Your task to perform on an android device: Set the phone to "Do not disturb". Image 0: 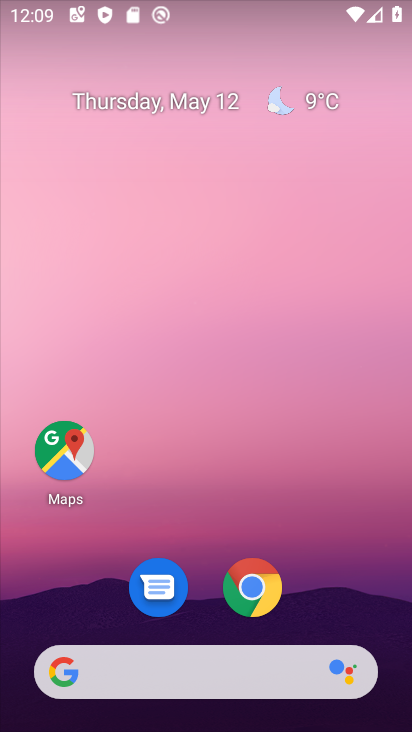
Step 0: drag from (320, 427) to (316, 253)
Your task to perform on an android device: Set the phone to "Do not disturb". Image 1: 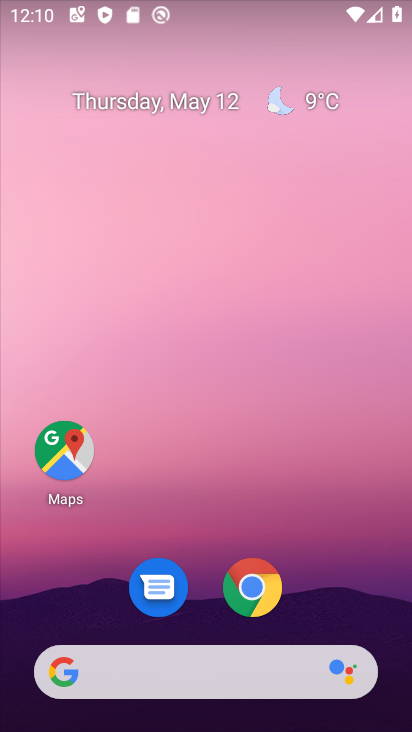
Step 1: drag from (176, 19) to (202, 430)
Your task to perform on an android device: Set the phone to "Do not disturb". Image 2: 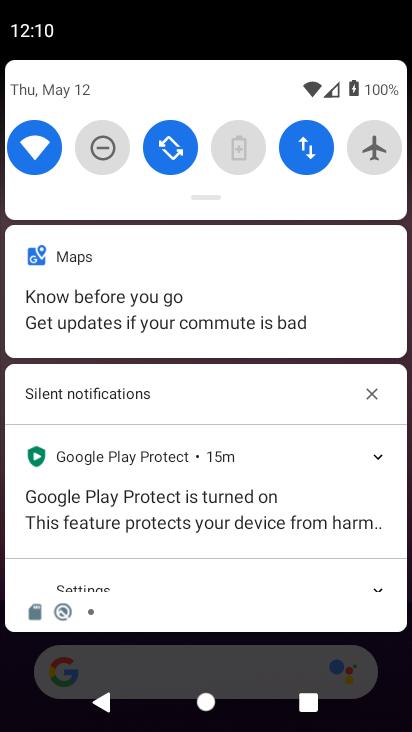
Step 2: click (98, 141)
Your task to perform on an android device: Set the phone to "Do not disturb". Image 3: 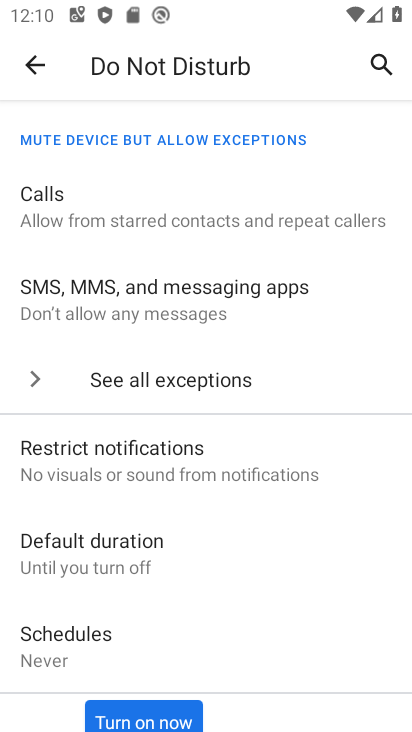
Step 3: click (166, 710)
Your task to perform on an android device: Set the phone to "Do not disturb". Image 4: 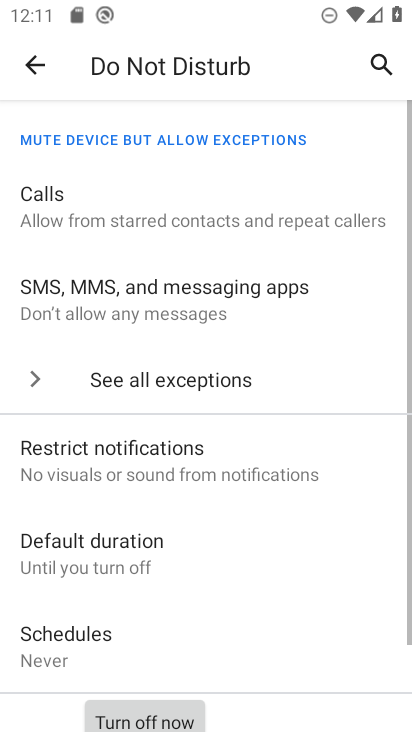
Step 4: task complete